Your task to perform on an android device: open app "Yahoo Mail" (install if not already installed) Image 0: 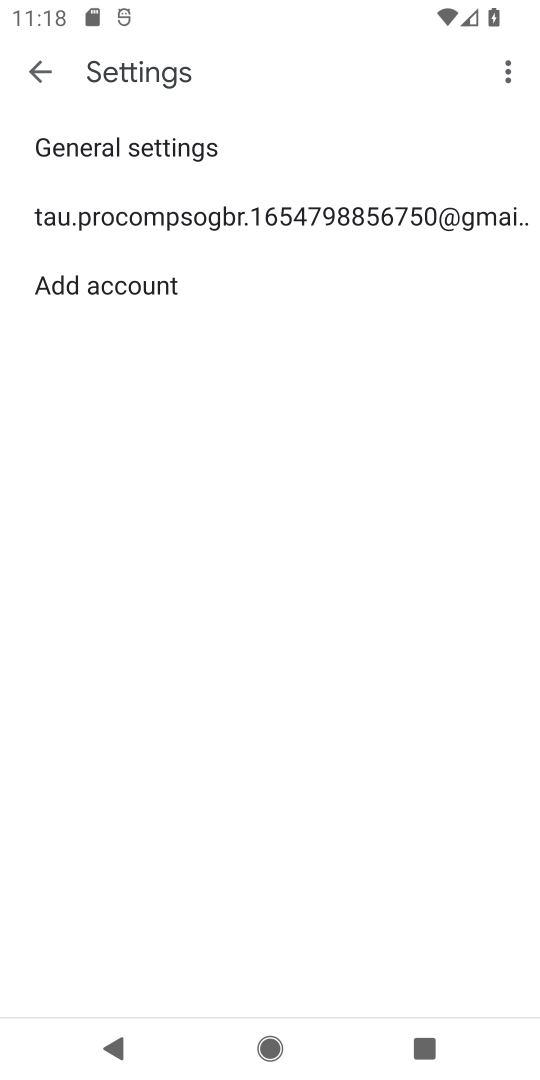
Step 0: press home button
Your task to perform on an android device: open app "Yahoo Mail" (install if not already installed) Image 1: 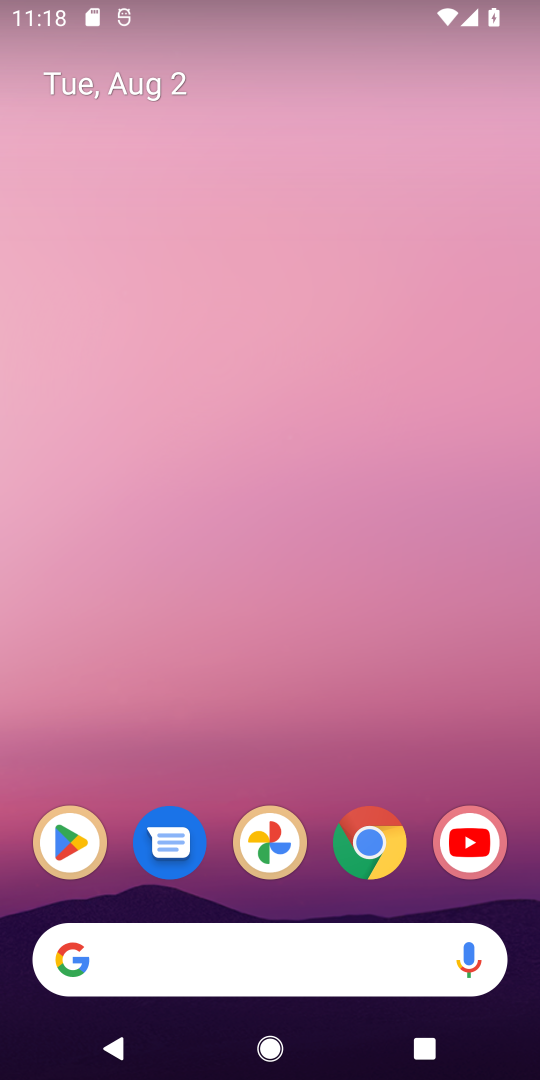
Step 1: click (64, 835)
Your task to perform on an android device: open app "Yahoo Mail" (install if not already installed) Image 2: 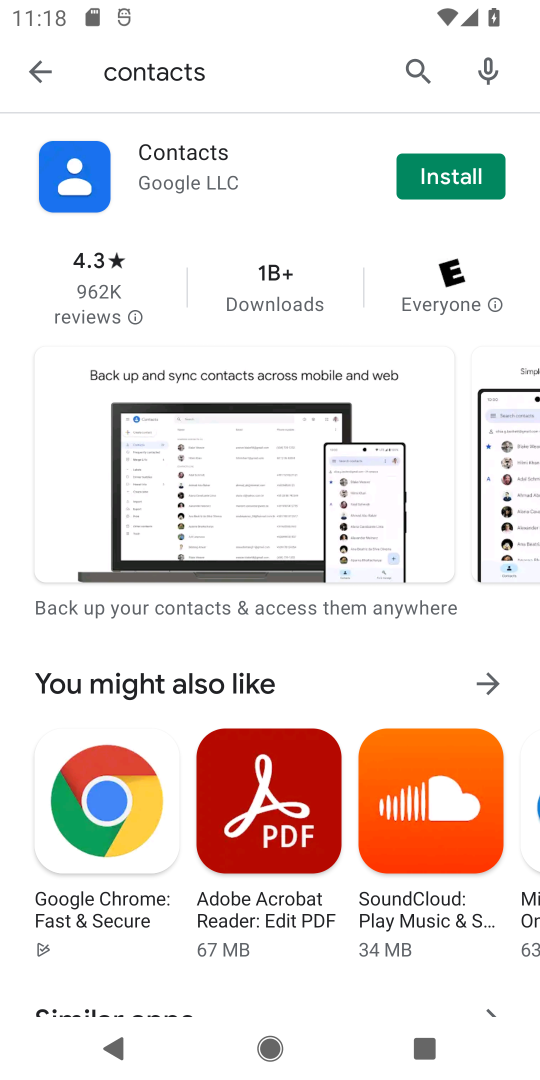
Step 2: click (427, 58)
Your task to perform on an android device: open app "Yahoo Mail" (install if not already installed) Image 3: 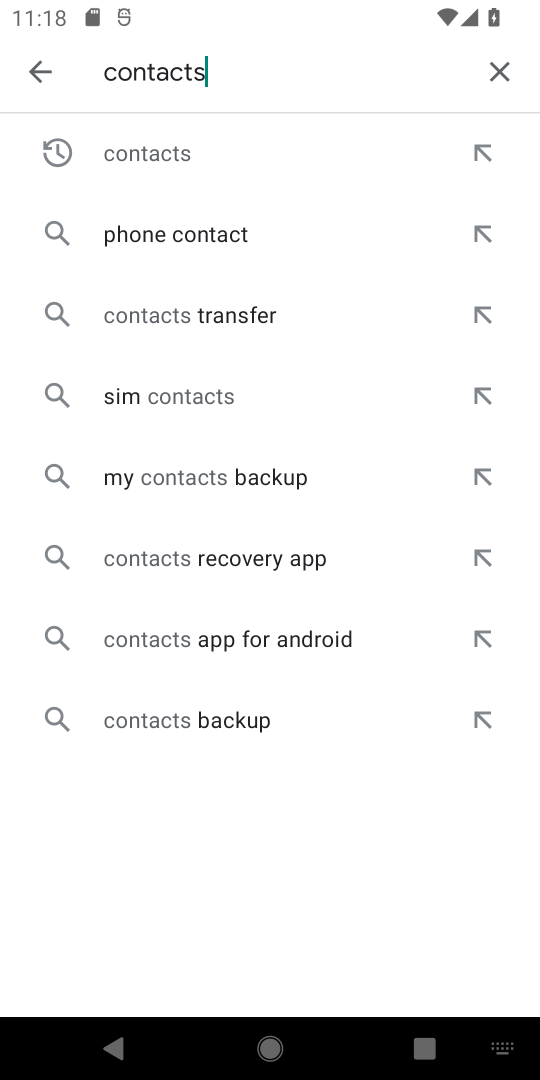
Step 3: click (508, 82)
Your task to perform on an android device: open app "Yahoo Mail" (install if not already installed) Image 4: 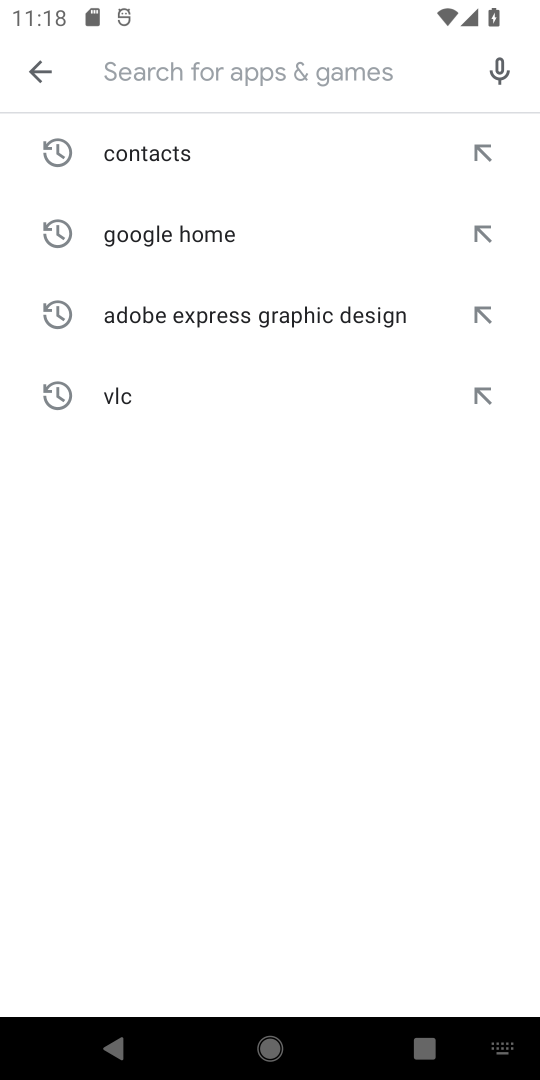
Step 4: type "Yahoo Mail"
Your task to perform on an android device: open app "Yahoo Mail" (install if not already installed) Image 5: 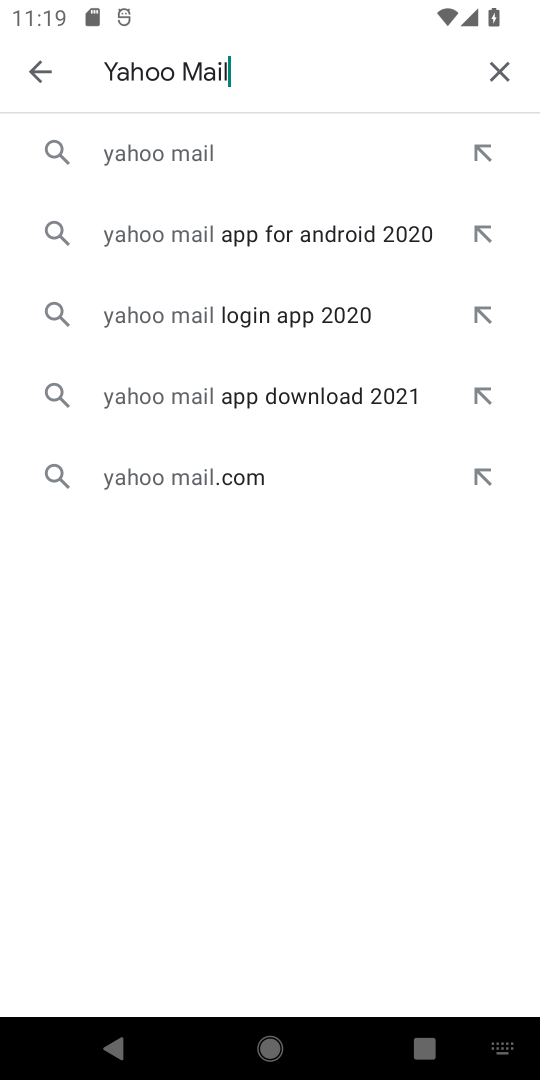
Step 5: click (180, 141)
Your task to perform on an android device: open app "Yahoo Mail" (install if not already installed) Image 6: 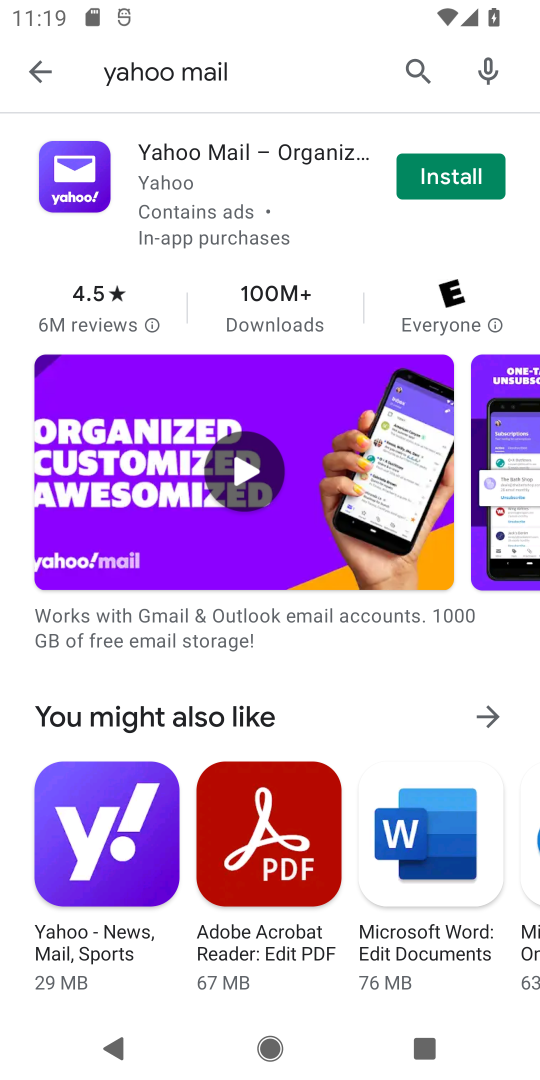
Step 6: click (452, 176)
Your task to perform on an android device: open app "Yahoo Mail" (install if not already installed) Image 7: 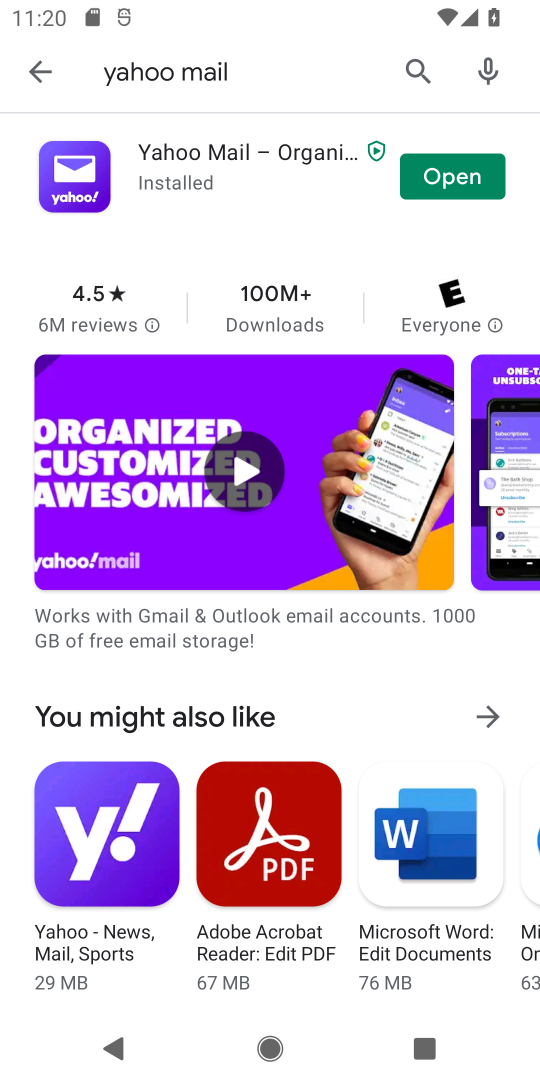
Step 7: click (483, 177)
Your task to perform on an android device: open app "Yahoo Mail" (install if not already installed) Image 8: 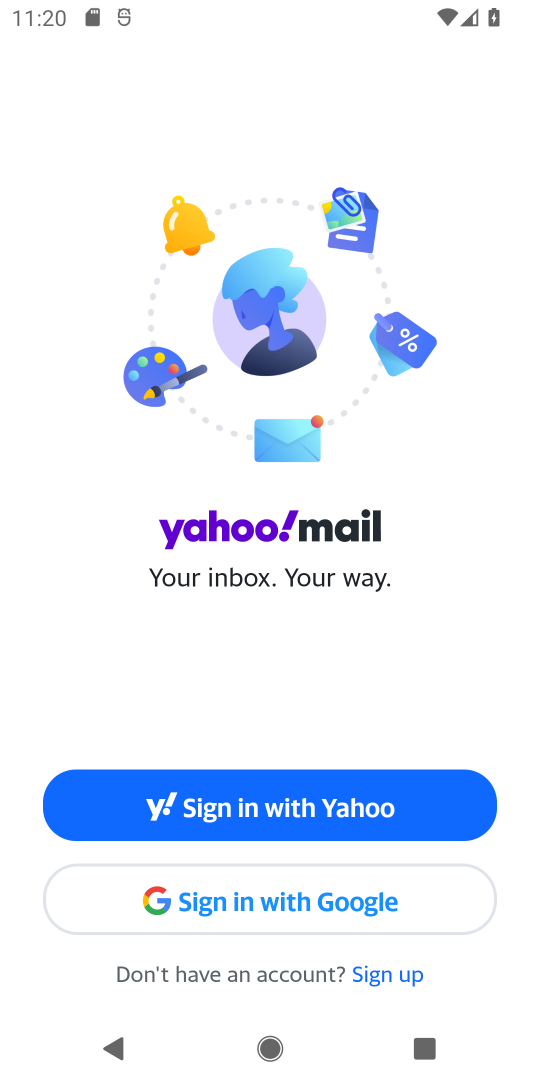
Step 8: task complete